Your task to perform on an android device: set the stopwatch Image 0: 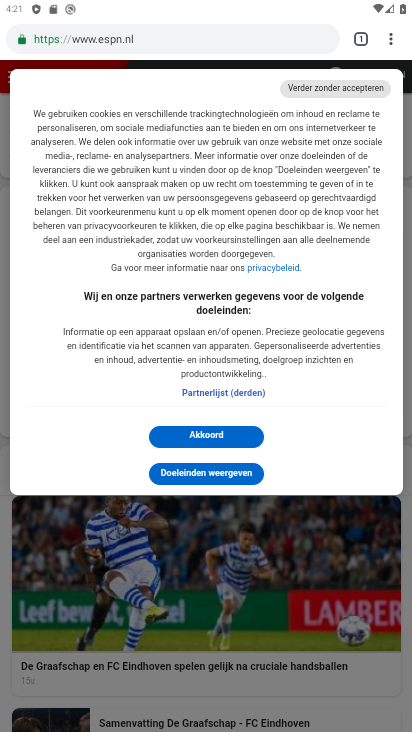
Step 0: press home button
Your task to perform on an android device: set the stopwatch Image 1: 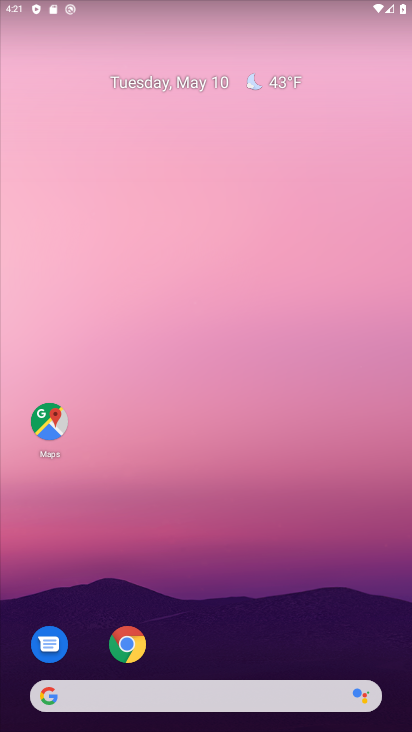
Step 1: drag from (260, 676) to (244, 274)
Your task to perform on an android device: set the stopwatch Image 2: 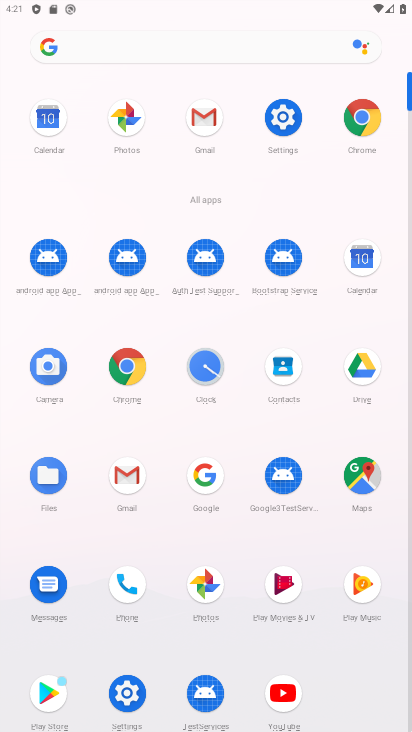
Step 2: click (194, 372)
Your task to perform on an android device: set the stopwatch Image 3: 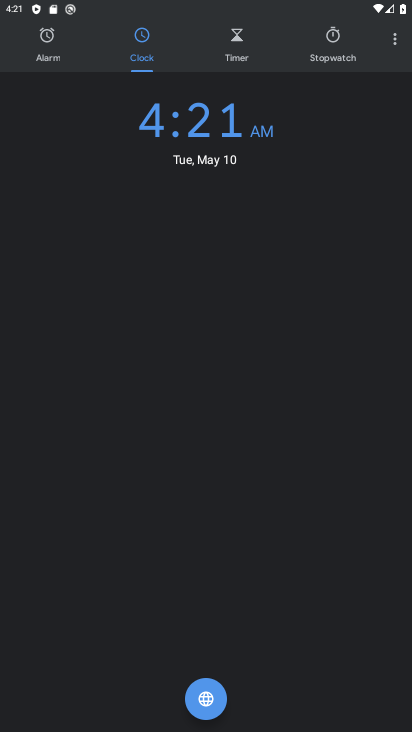
Step 3: click (341, 47)
Your task to perform on an android device: set the stopwatch Image 4: 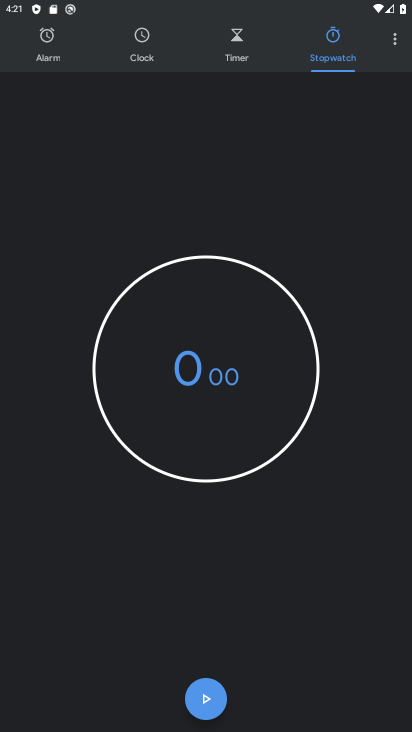
Step 4: click (210, 699)
Your task to perform on an android device: set the stopwatch Image 5: 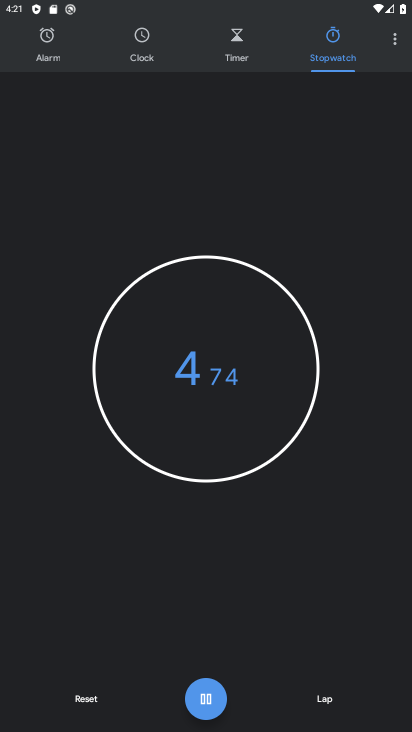
Step 5: click (206, 704)
Your task to perform on an android device: set the stopwatch Image 6: 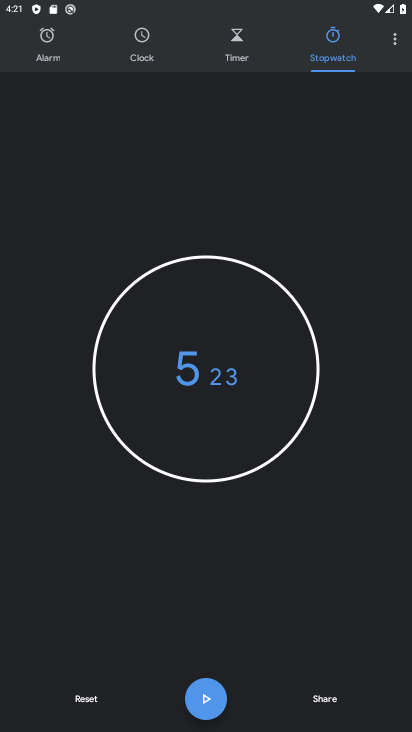
Step 6: task complete